Your task to perform on an android device: turn smart compose on in the gmail app Image 0: 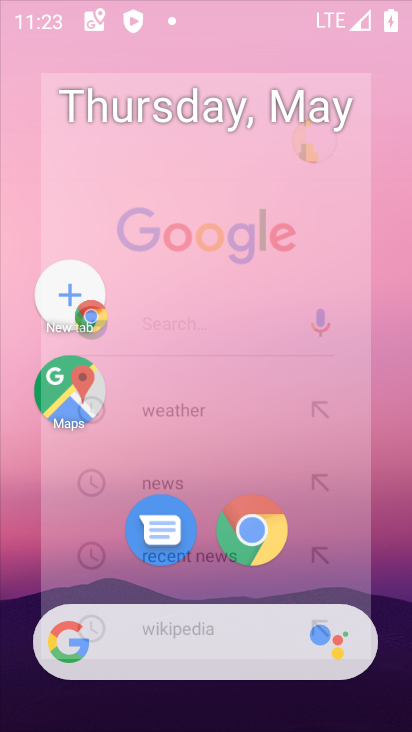
Step 0: drag from (251, 378) to (216, 180)
Your task to perform on an android device: turn smart compose on in the gmail app Image 1: 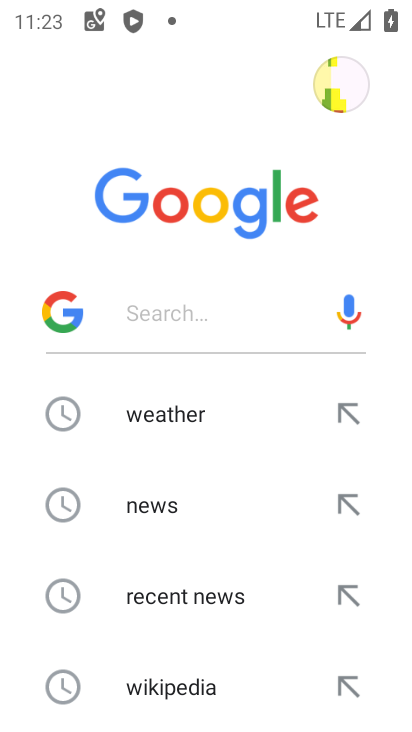
Step 1: press back button
Your task to perform on an android device: turn smart compose on in the gmail app Image 2: 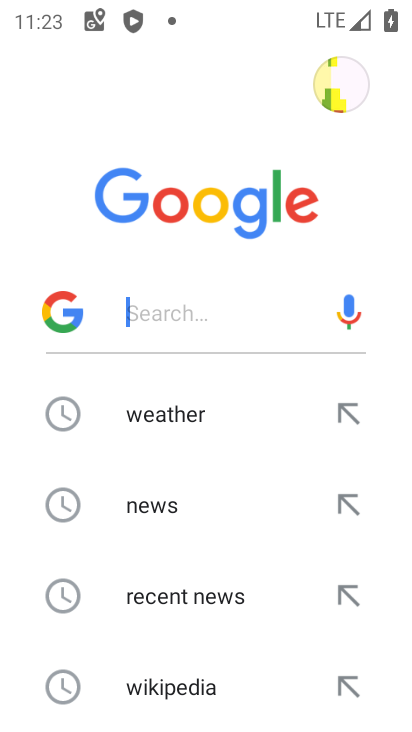
Step 2: press back button
Your task to perform on an android device: turn smart compose on in the gmail app Image 3: 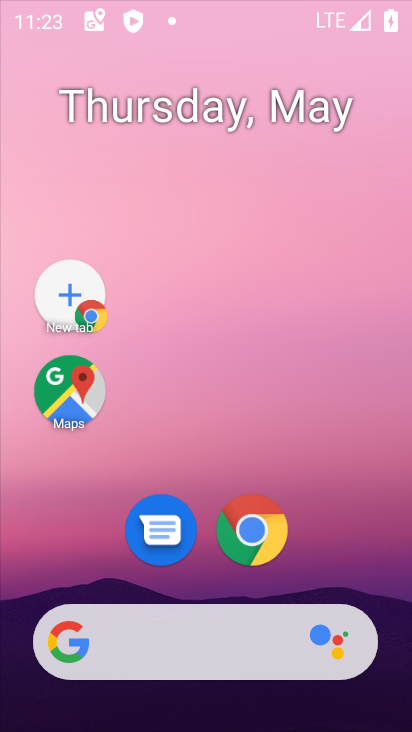
Step 3: press back button
Your task to perform on an android device: turn smart compose on in the gmail app Image 4: 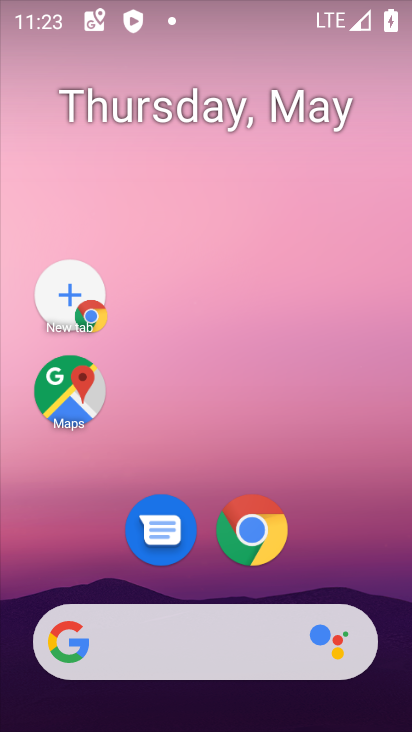
Step 4: drag from (273, 680) to (174, 180)
Your task to perform on an android device: turn smart compose on in the gmail app Image 5: 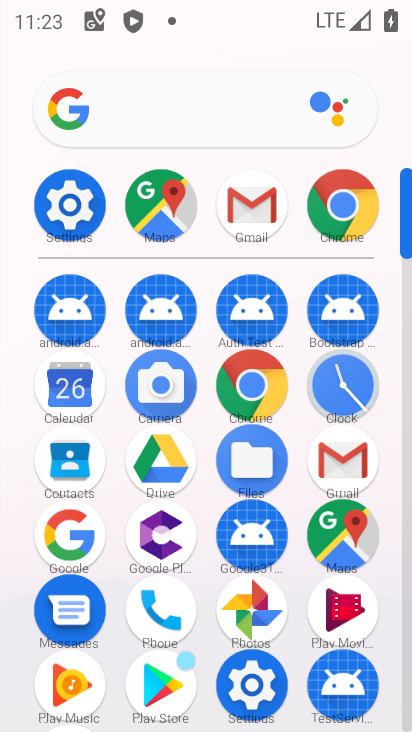
Step 5: click (252, 199)
Your task to perform on an android device: turn smart compose on in the gmail app Image 6: 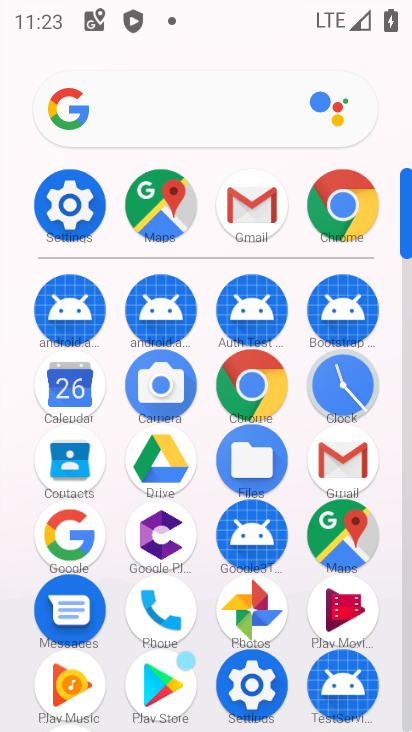
Step 6: click (260, 203)
Your task to perform on an android device: turn smart compose on in the gmail app Image 7: 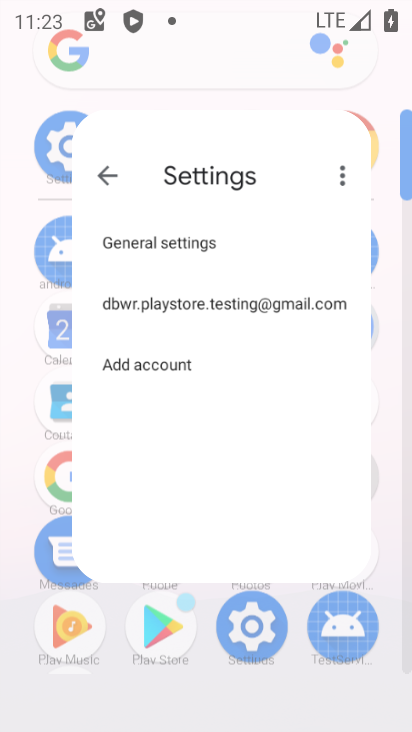
Step 7: click (266, 206)
Your task to perform on an android device: turn smart compose on in the gmail app Image 8: 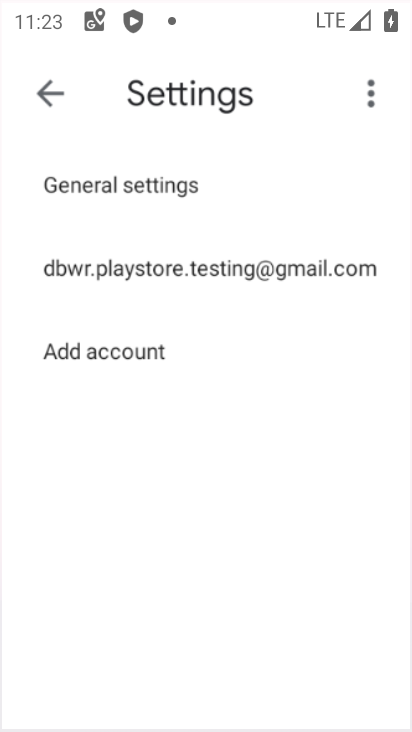
Step 8: click (267, 209)
Your task to perform on an android device: turn smart compose on in the gmail app Image 9: 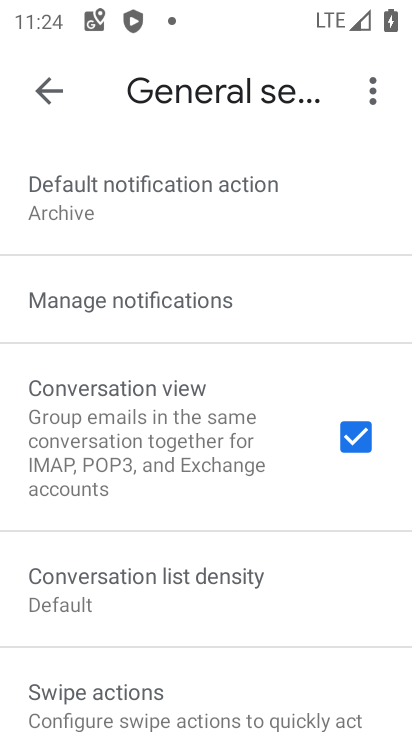
Step 9: drag from (144, 602) to (161, 187)
Your task to perform on an android device: turn smart compose on in the gmail app Image 10: 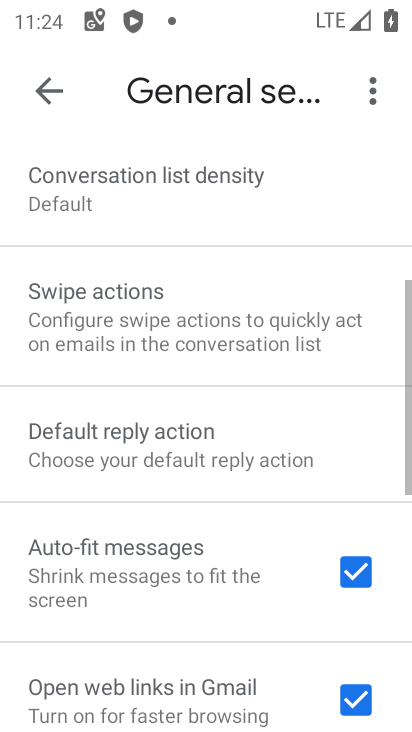
Step 10: drag from (261, 504) to (219, 163)
Your task to perform on an android device: turn smart compose on in the gmail app Image 11: 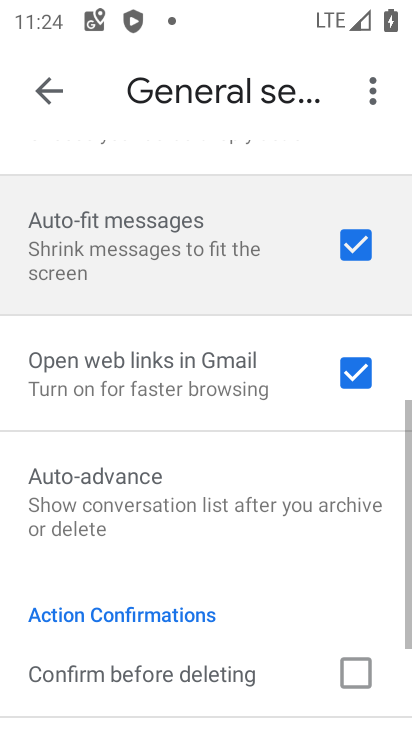
Step 11: drag from (155, 434) to (141, 164)
Your task to perform on an android device: turn smart compose on in the gmail app Image 12: 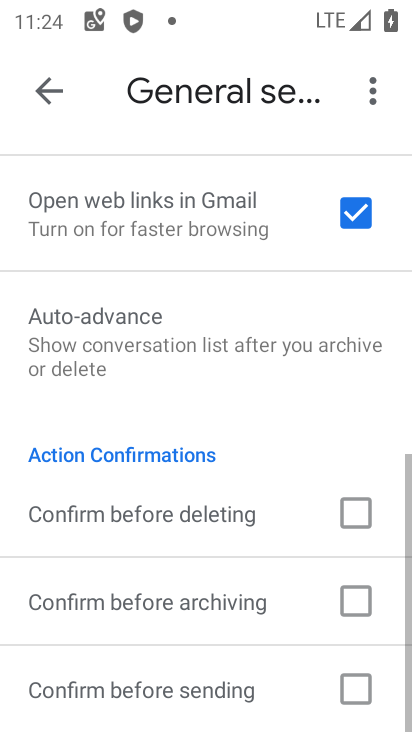
Step 12: drag from (128, 273) to (166, 577)
Your task to perform on an android device: turn smart compose on in the gmail app Image 13: 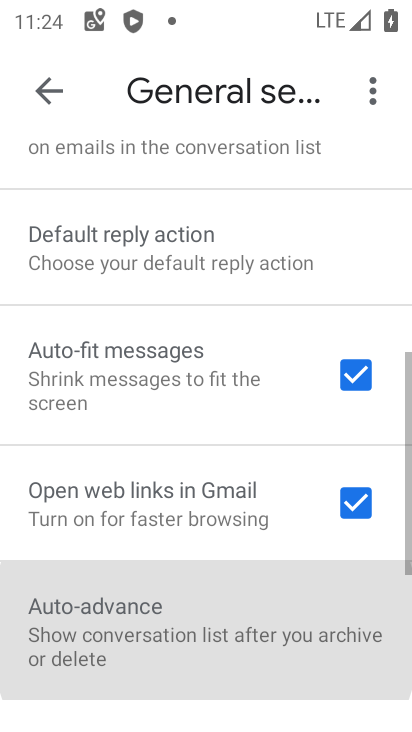
Step 13: drag from (189, 295) to (220, 415)
Your task to perform on an android device: turn smart compose on in the gmail app Image 14: 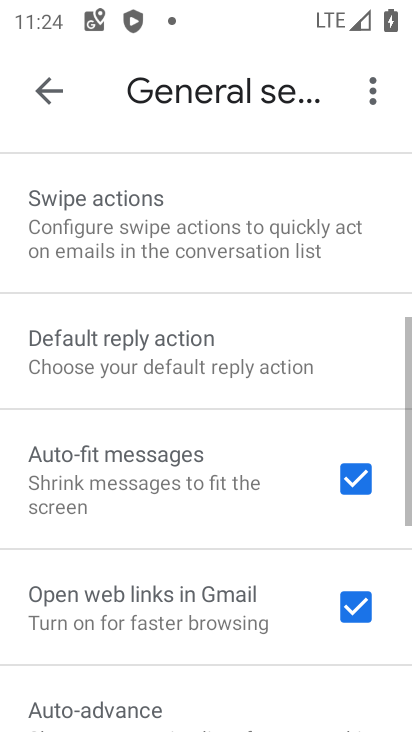
Step 14: drag from (184, 271) to (234, 509)
Your task to perform on an android device: turn smart compose on in the gmail app Image 15: 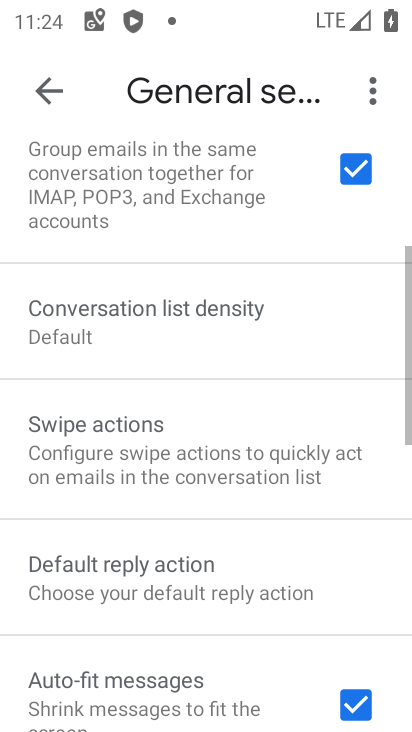
Step 15: drag from (183, 336) to (181, 549)
Your task to perform on an android device: turn smart compose on in the gmail app Image 16: 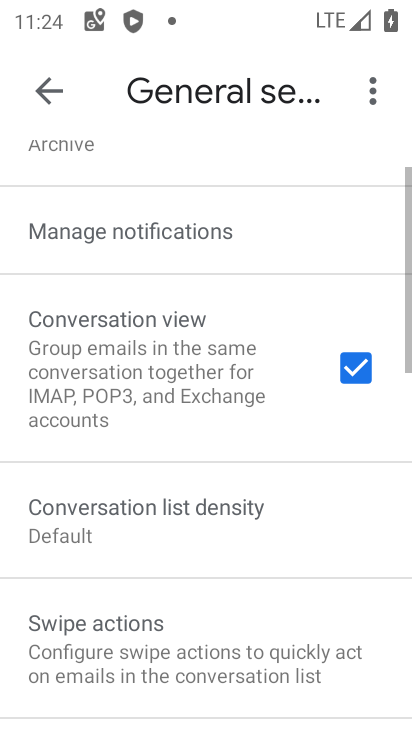
Step 16: click (144, 437)
Your task to perform on an android device: turn smart compose on in the gmail app Image 17: 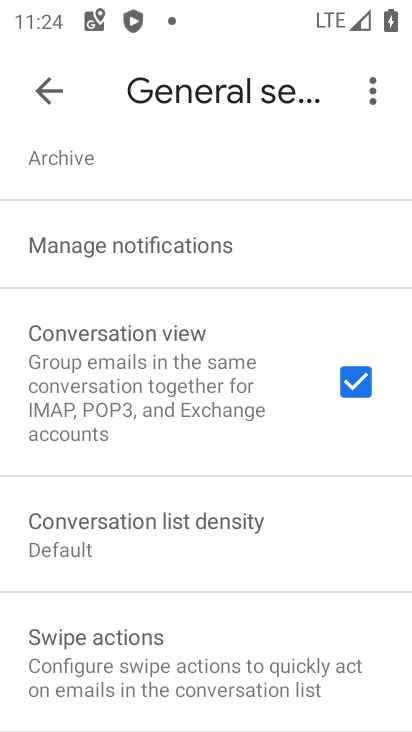
Step 17: drag from (166, 459) to (201, 501)
Your task to perform on an android device: turn smart compose on in the gmail app Image 18: 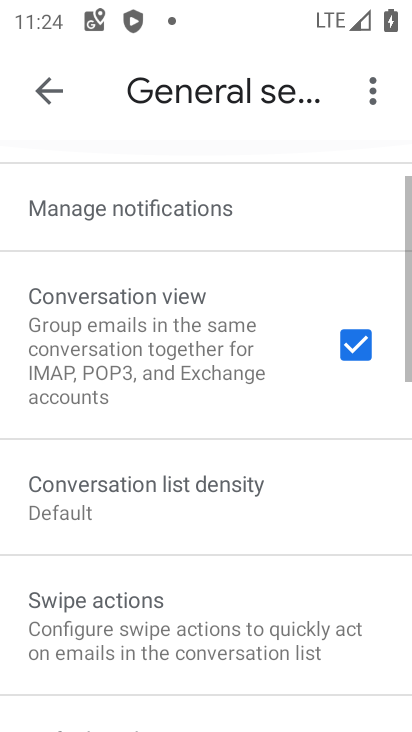
Step 18: drag from (207, 522) to (177, 205)
Your task to perform on an android device: turn smart compose on in the gmail app Image 19: 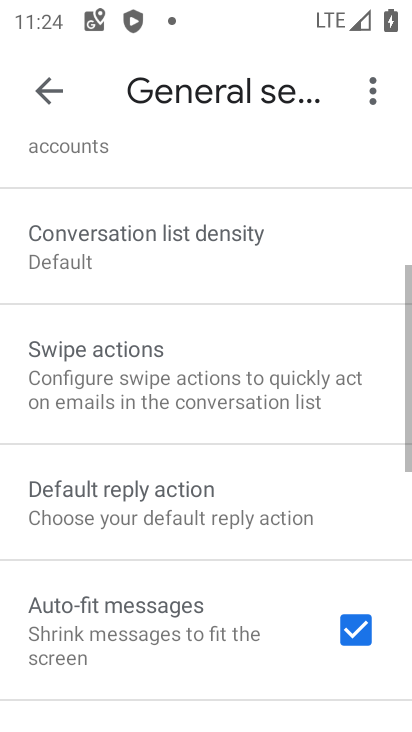
Step 19: drag from (266, 548) to (234, 257)
Your task to perform on an android device: turn smart compose on in the gmail app Image 20: 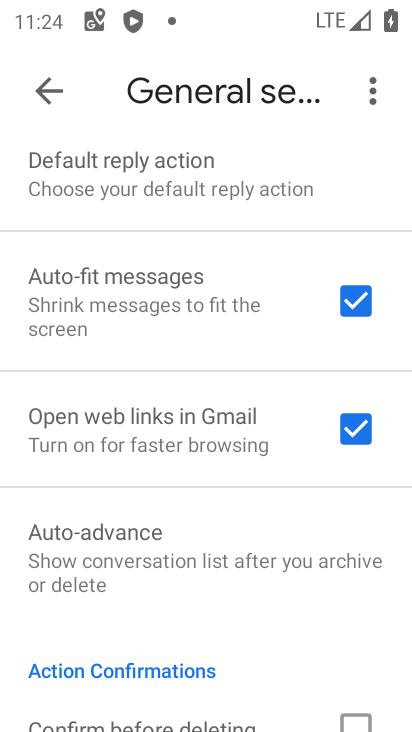
Step 20: drag from (201, 263) to (152, 555)
Your task to perform on an android device: turn smart compose on in the gmail app Image 21: 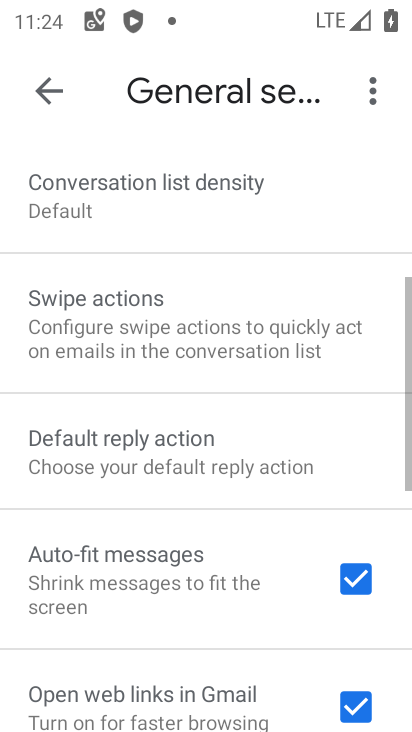
Step 21: drag from (113, 274) to (138, 620)
Your task to perform on an android device: turn smart compose on in the gmail app Image 22: 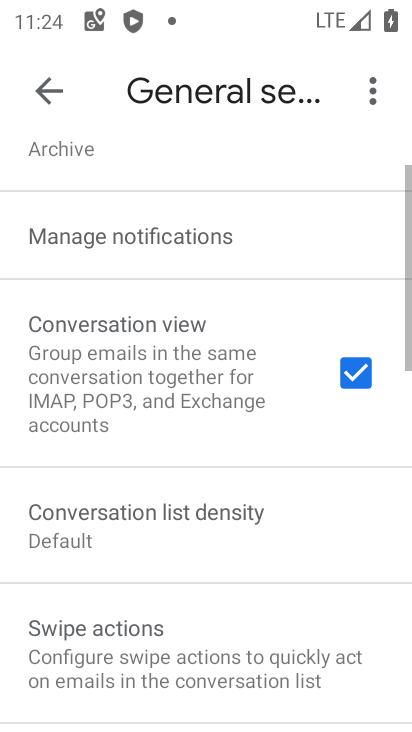
Step 22: drag from (154, 270) to (222, 675)
Your task to perform on an android device: turn smart compose on in the gmail app Image 23: 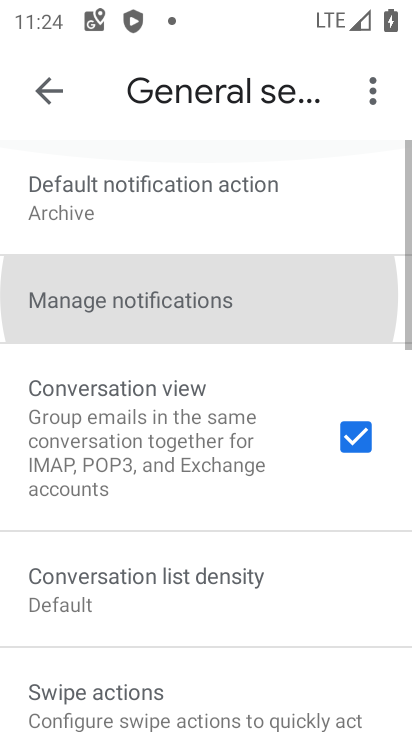
Step 23: drag from (206, 253) to (235, 569)
Your task to perform on an android device: turn smart compose on in the gmail app Image 24: 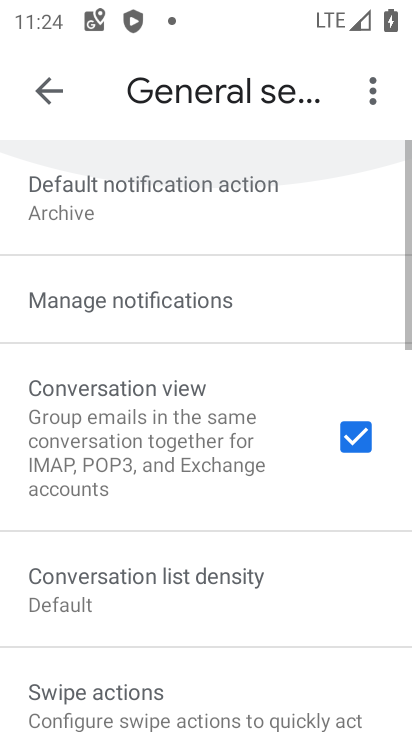
Step 24: drag from (192, 228) to (212, 650)
Your task to perform on an android device: turn smart compose on in the gmail app Image 25: 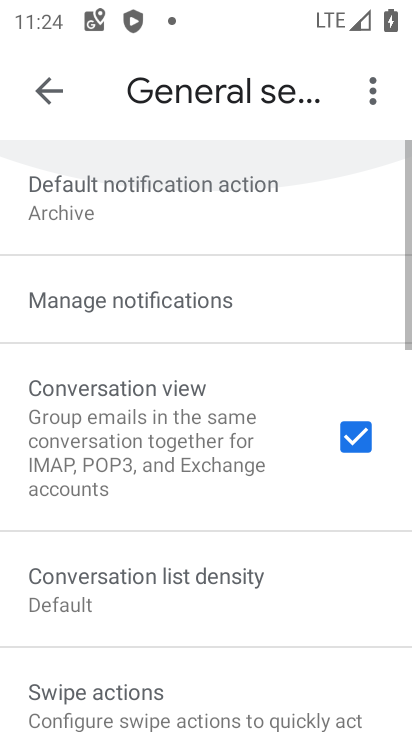
Step 25: drag from (133, 277) to (198, 614)
Your task to perform on an android device: turn smart compose on in the gmail app Image 26: 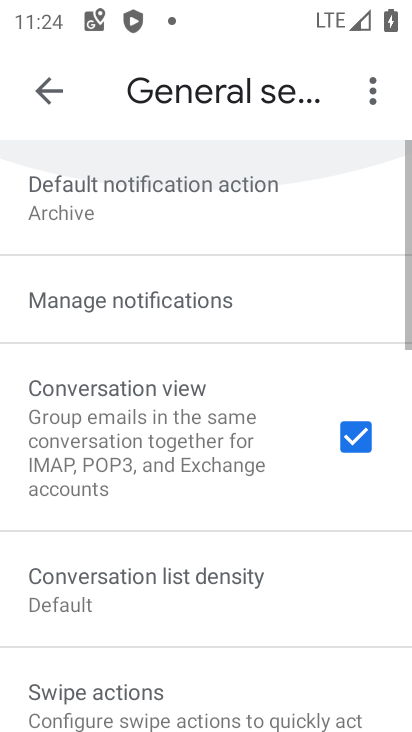
Step 26: drag from (178, 255) to (244, 726)
Your task to perform on an android device: turn smart compose on in the gmail app Image 27: 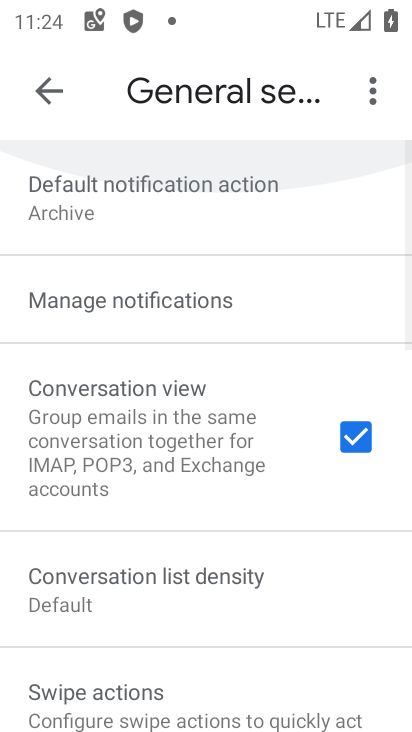
Step 27: drag from (227, 278) to (228, 646)
Your task to perform on an android device: turn smart compose on in the gmail app Image 28: 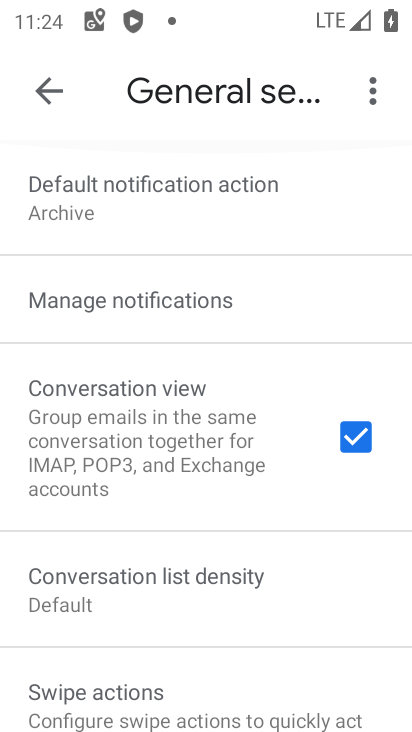
Step 28: drag from (228, 406) to (219, 260)
Your task to perform on an android device: turn smart compose on in the gmail app Image 29: 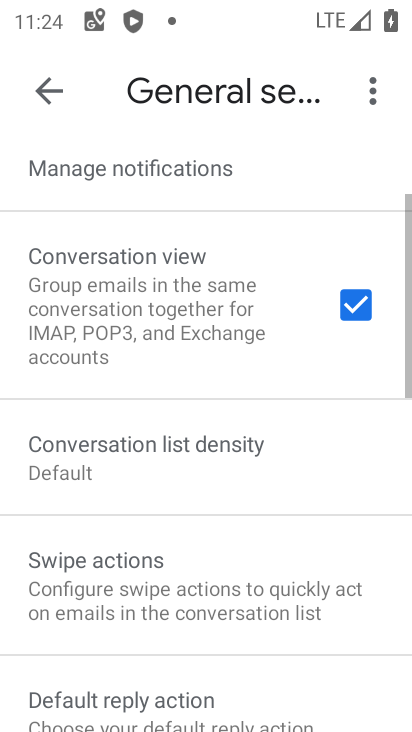
Step 29: drag from (227, 415) to (226, 268)
Your task to perform on an android device: turn smart compose on in the gmail app Image 30: 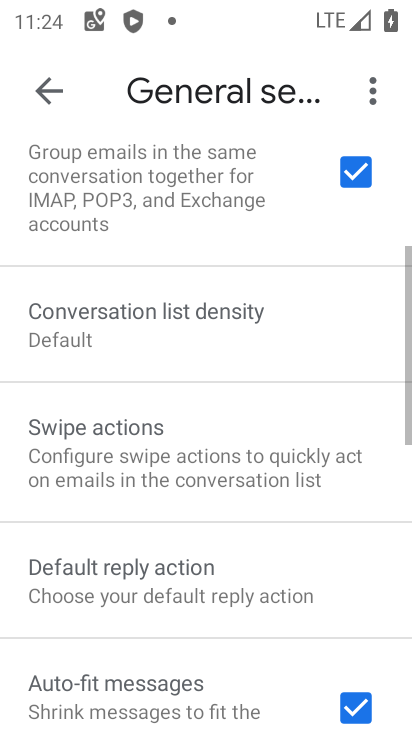
Step 30: click (226, 267)
Your task to perform on an android device: turn smart compose on in the gmail app Image 31: 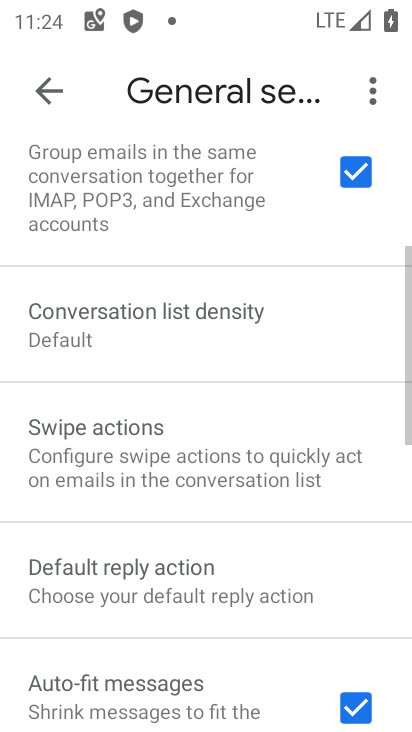
Step 31: drag from (225, 403) to (198, 178)
Your task to perform on an android device: turn smart compose on in the gmail app Image 32: 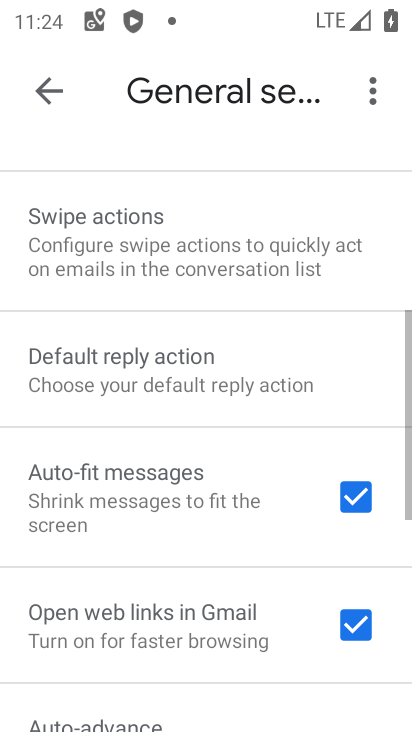
Step 32: drag from (211, 397) to (211, 206)
Your task to perform on an android device: turn smart compose on in the gmail app Image 33: 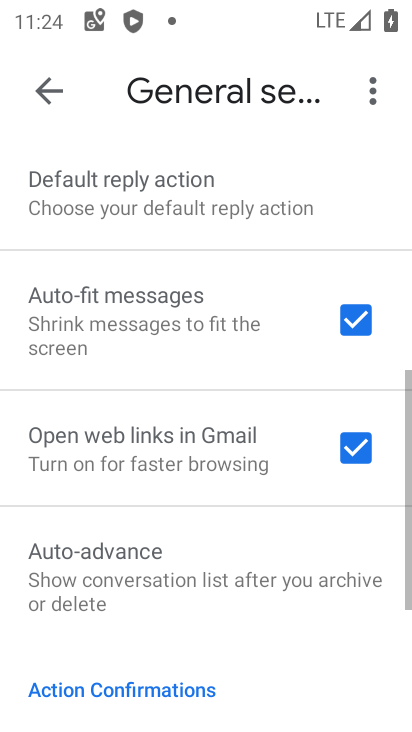
Step 33: drag from (221, 492) to (221, 225)
Your task to perform on an android device: turn smart compose on in the gmail app Image 34: 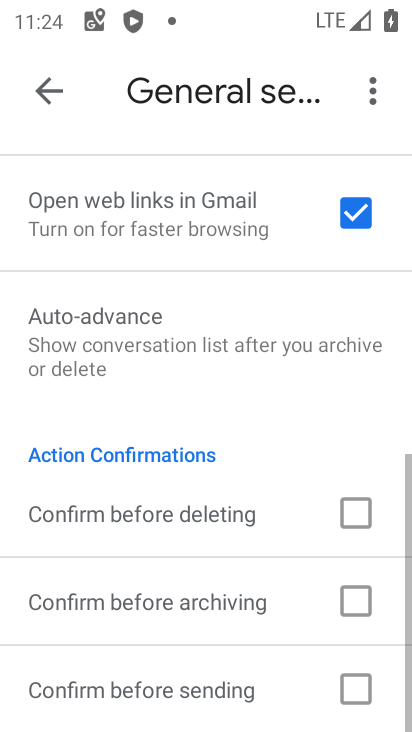
Step 34: drag from (213, 442) to (200, 157)
Your task to perform on an android device: turn smart compose on in the gmail app Image 35: 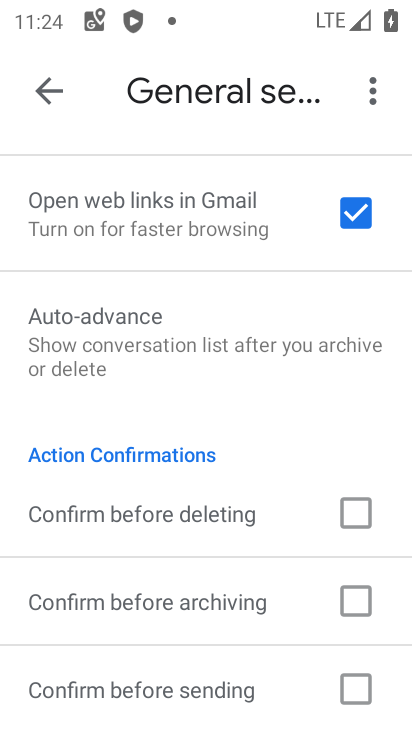
Step 35: click (47, 88)
Your task to perform on an android device: turn smart compose on in the gmail app Image 36: 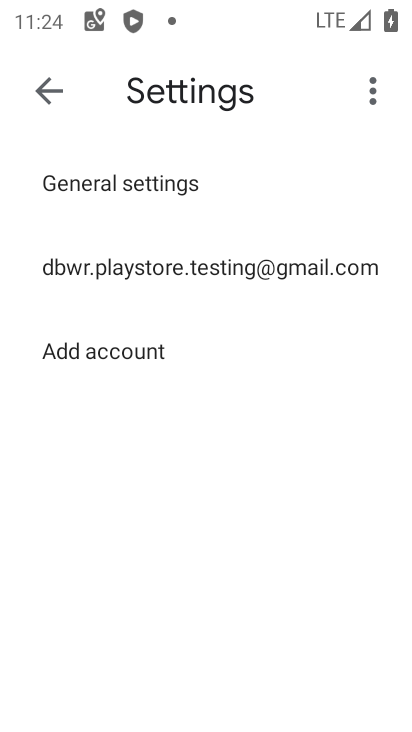
Step 36: click (161, 269)
Your task to perform on an android device: turn smart compose on in the gmail app Image 37: 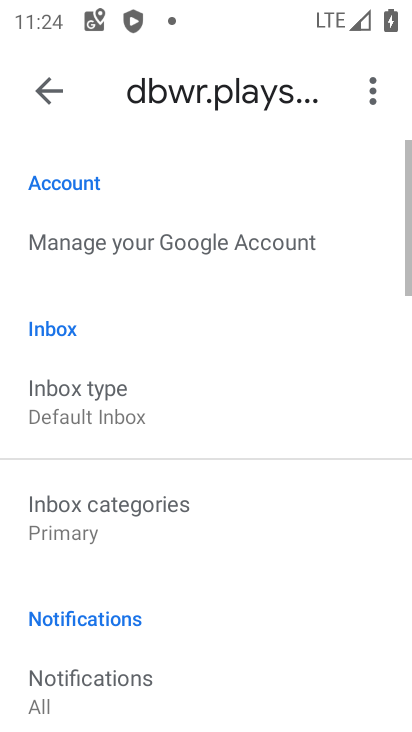
Step 37: task complete